Your task to perform on an android device: Open Google Maps and go to "Timeline" Image 0: 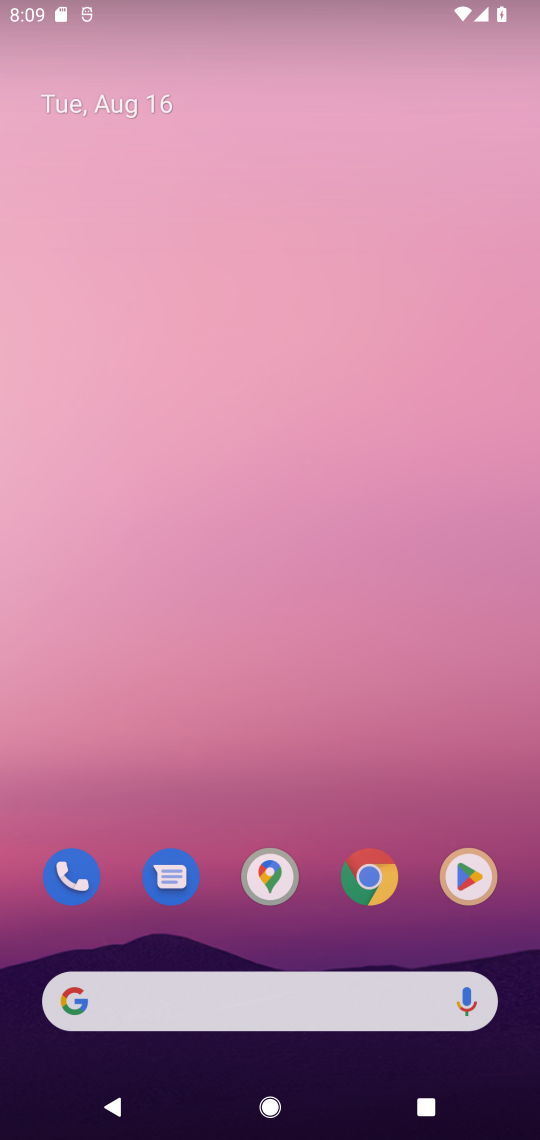
Step 0: press home button
Your task to perform on an android device: Open Google Maps and go to "Timeline" Image 1: 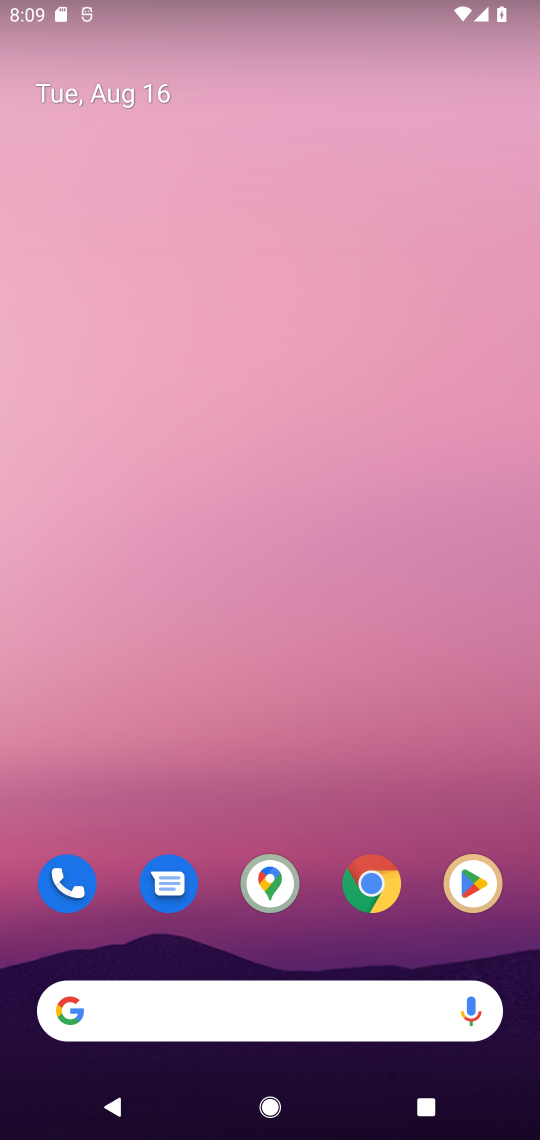
Step 1: drag from (191, 934) to (230, 247)
Your task to perform on an android device: Open Google Maps and go to "Timeline" Image 2: 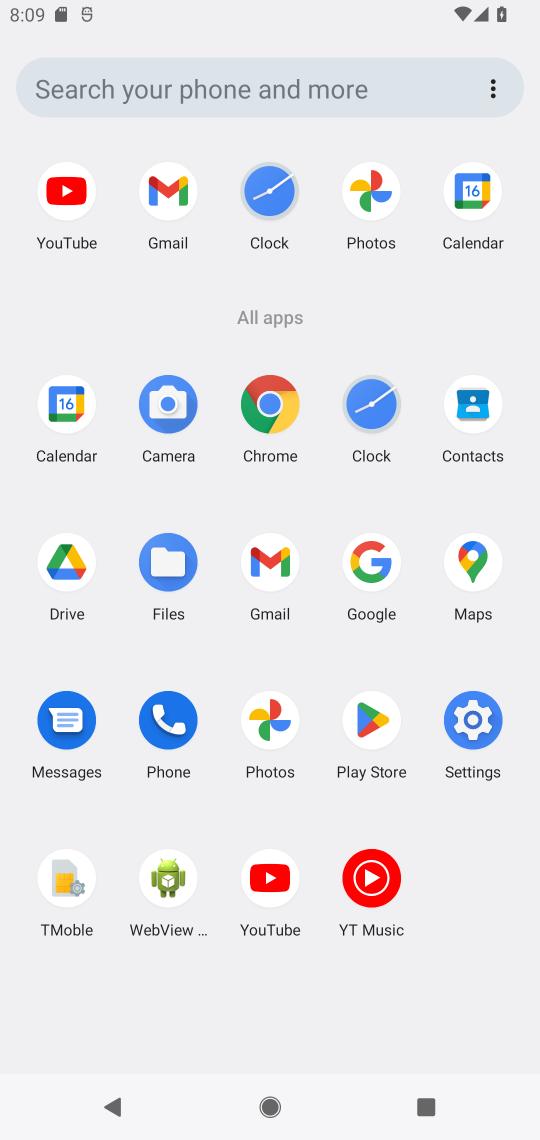
Step 2: click (482, 542)
Your task to perform on an android device: Open Google Maps and go to "Timeline" Image 3: 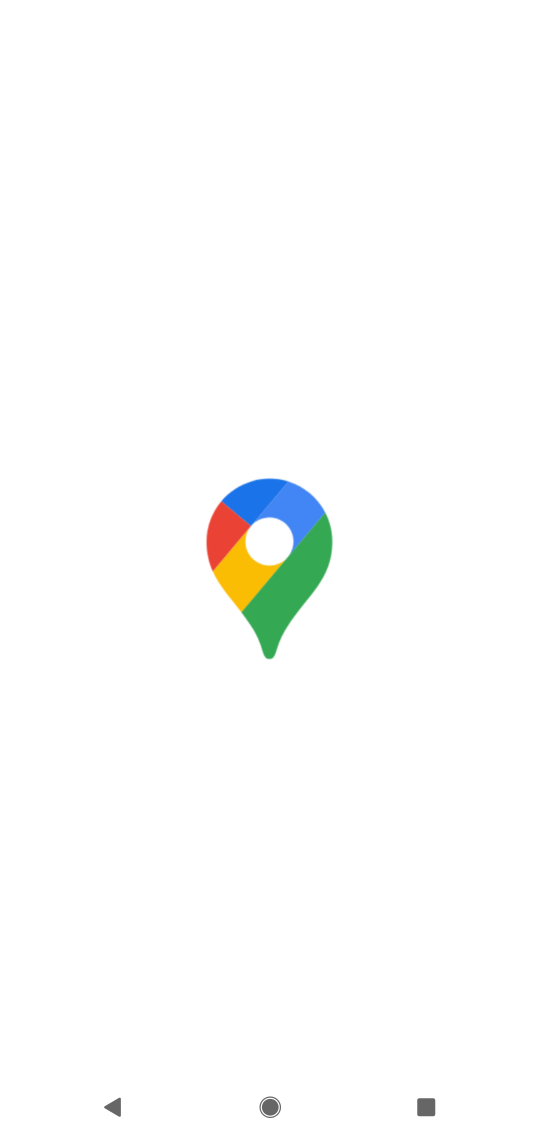
Step 3: task complete